Your task to perform on an android device: Go to network settings Image 0: 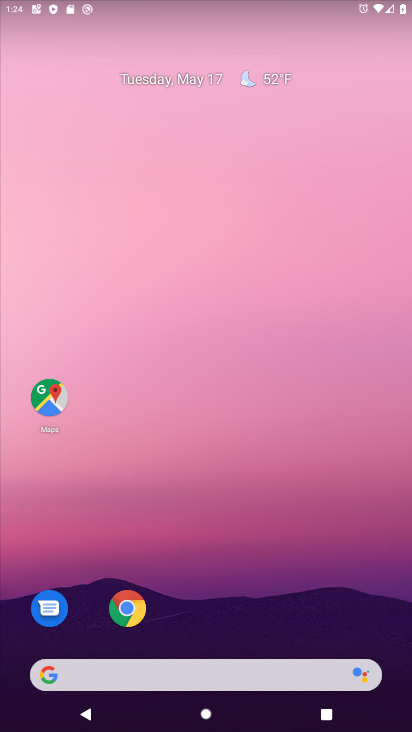
Step 0: drag from (175, 604) to (213, 29)
Your task to perform on an android device: Go to network settings Image 1: 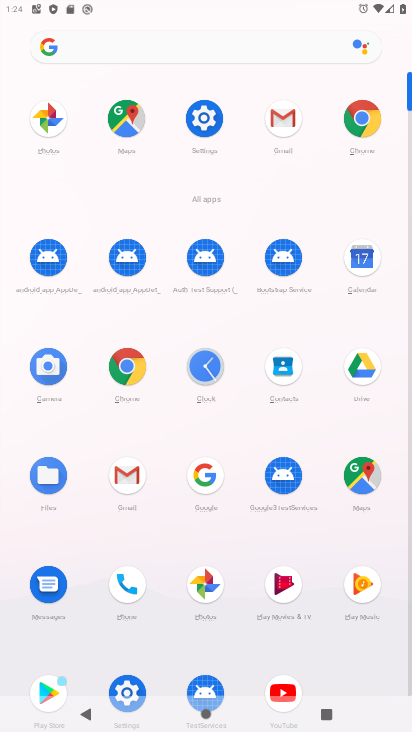
Step 1: click (202, 113)
Your task to perform on an android device: Go to network settings Image 2: 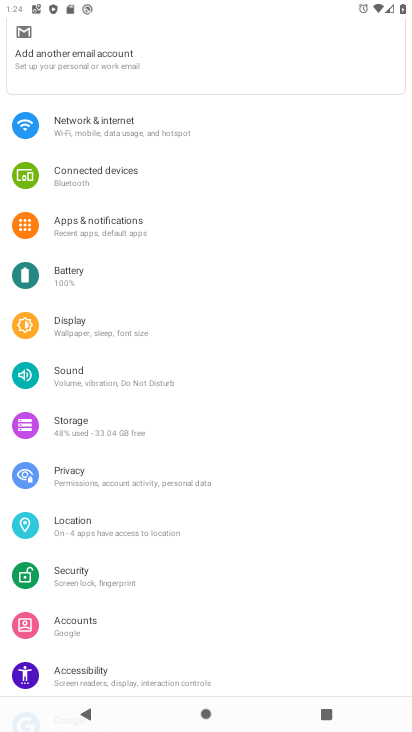
Step 2: click (202, 113)
Your task to perform on an android device: Go to network settings Image 3: 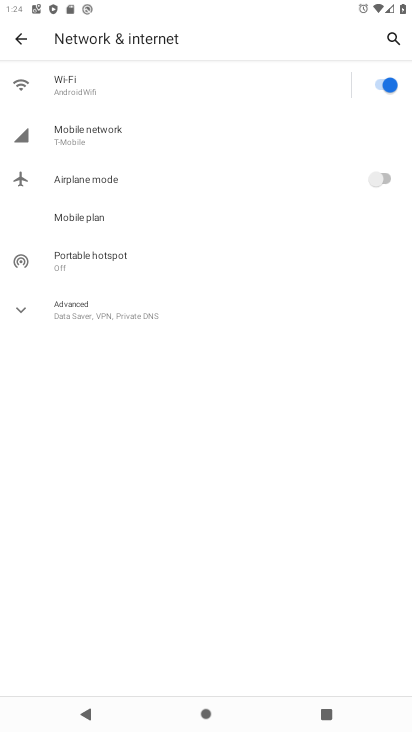
Step 3: task complete